Your task to perform on an android device: create a new album in the google photos Image 0: 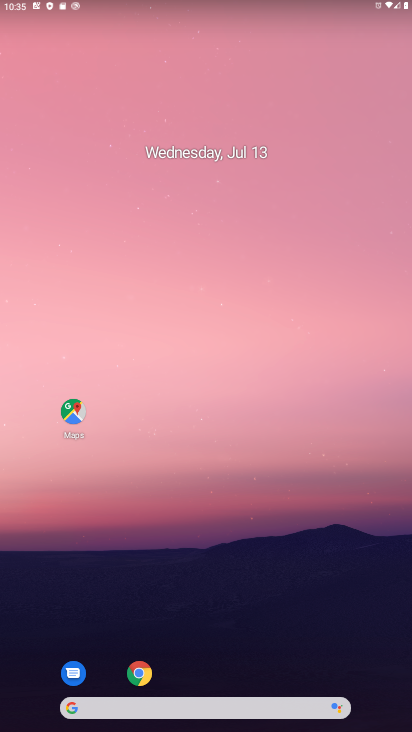
Step 0: drag from (192, 330) to (170, 145)
Your task to perform on an android device: create a new album in the google photos Image 1: 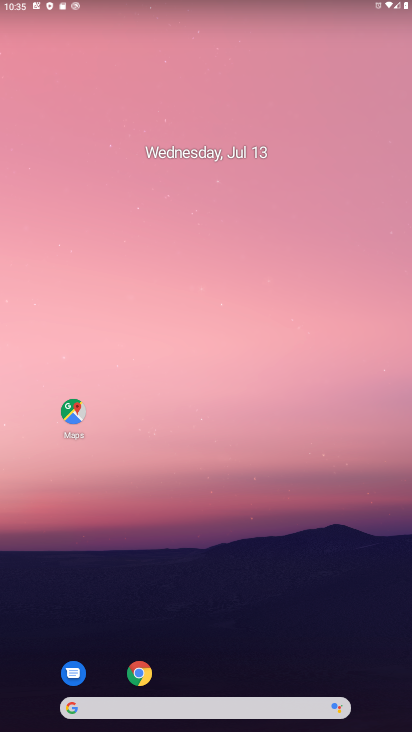
Step 1: drag from (220, 336) to (186, 82)
Your task to perform on an android device: create a new album in the google photos Image 2: 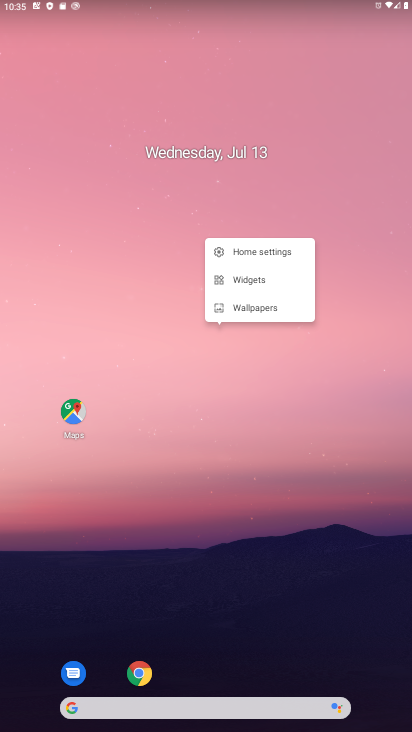
Step 2: drag from (202, 662) to (179, 122)
Your task to perform on an android device: create a new album in the google photos Image 3: 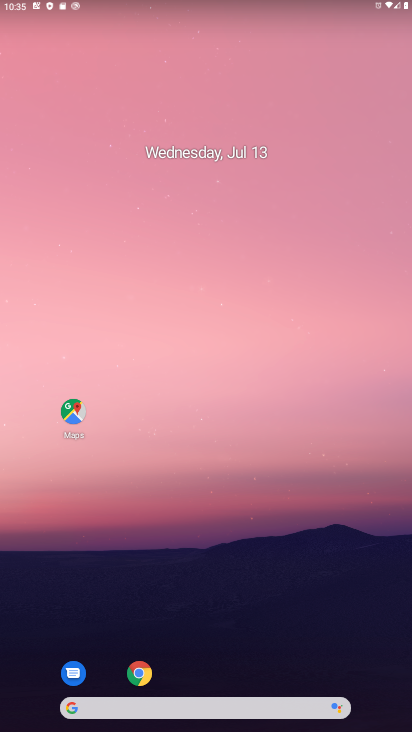
Step 3: drag from (223, 592) to (235, 83)
Your task to perform on an android device: create a new album in the google photos Image 4: 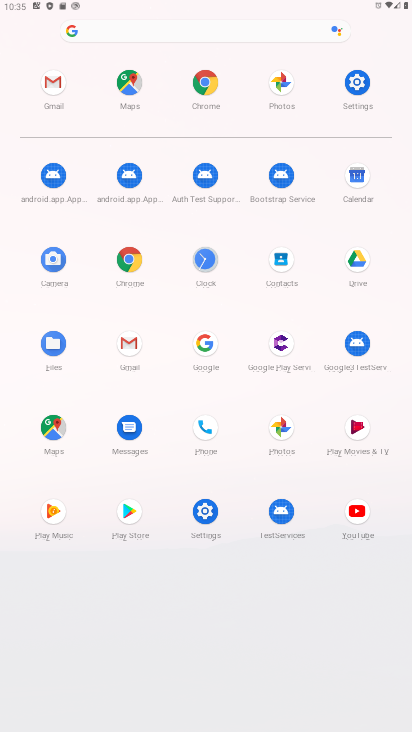
Step 4: click (283, 89)
Your task to perform on an android device: create a new album in the google photos Image 5: 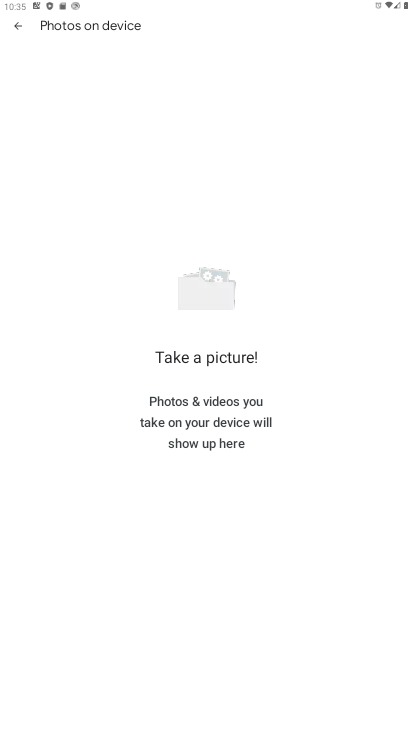
Step 5: click (285, 99)
Your task to perform on an android device: create a new album in the google photos Image 6: 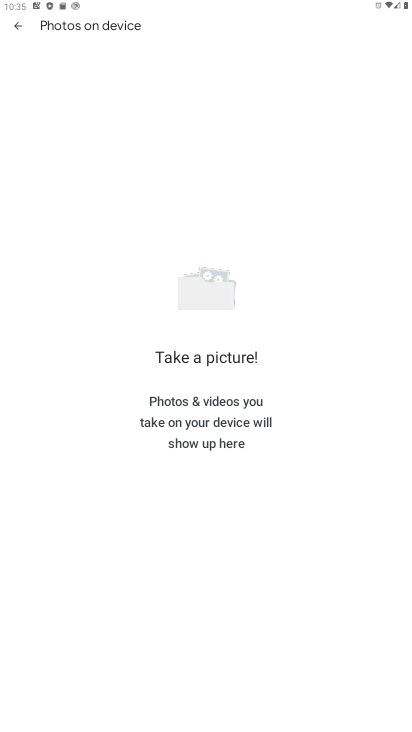
Step 6: task complete